Your task to perform on an android device: read, delete, or share a saved page in the chrome app Image 0: 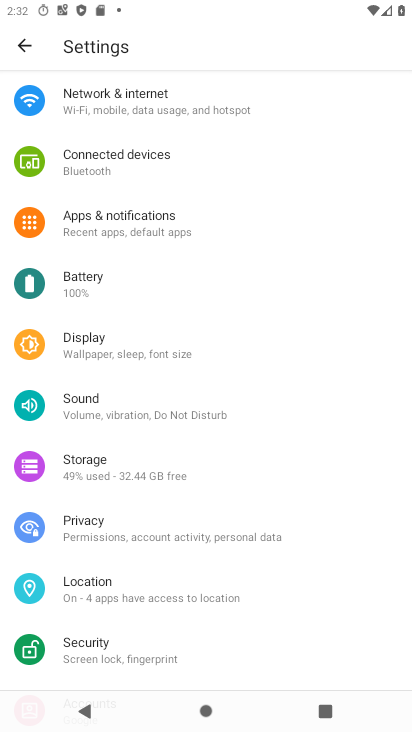
Step 0: press home button
Your task to perform on an android device: read, delete, or share a saved page in the chrome app Image 1: 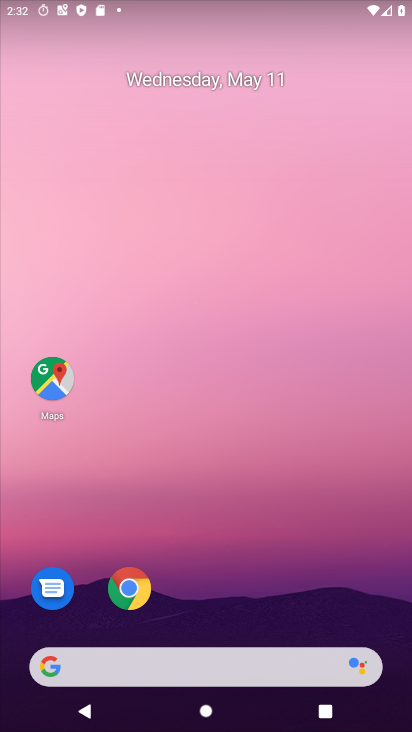
Step 1: drag from (202, 610) to (238, 34)
Your task to perform on an android device: read, delete, or share a saved page in the chrome app Image 2: 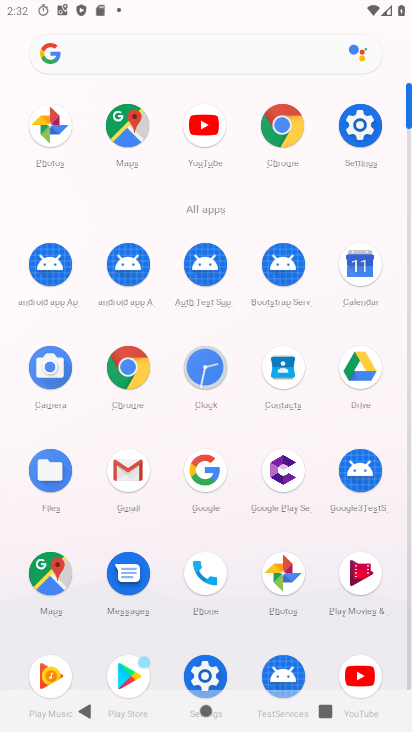
Step 2: click (281, 128)
Your task to perform on an android device: read, delete, or share a saved page in the chrome app Image 3: 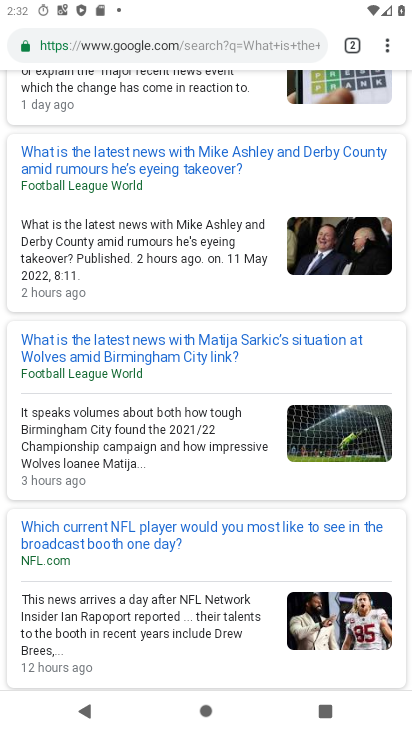
Step 3: drag from (385, 44) to (217, 141)
Your task to perform on an android device: read, delete, or share a saved page in the chrome app Image 4: 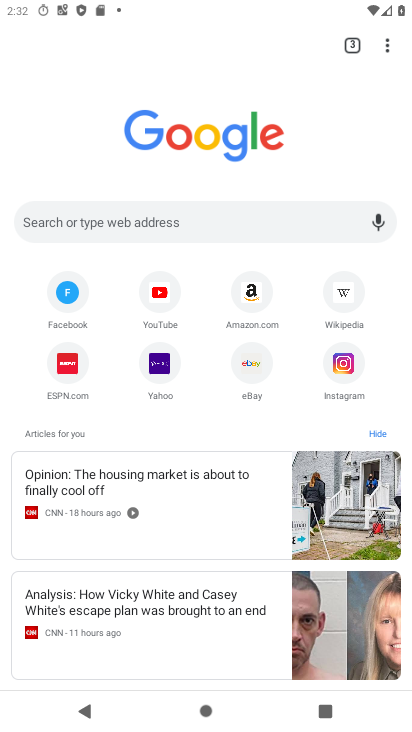
Step 4: click (353, 294)
Your task to perform on an android device: read, delete, or share a saved page in the chrome app Image 5: 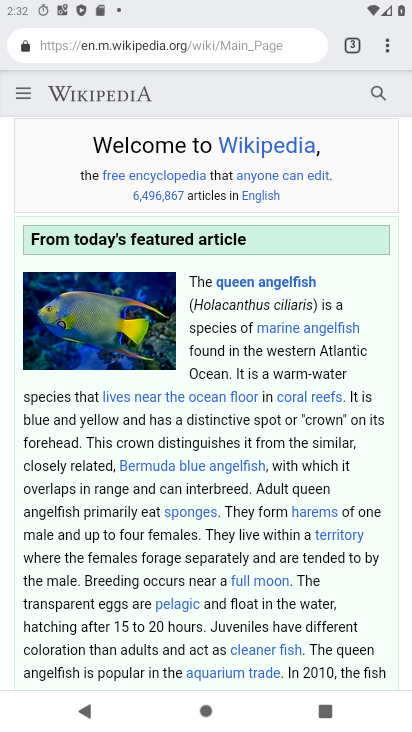
Step 5: drag from (251, 459) to (284, 150)
Your task to perform on an android device: read, delete, or share a saved page in the chrome app Image 6: 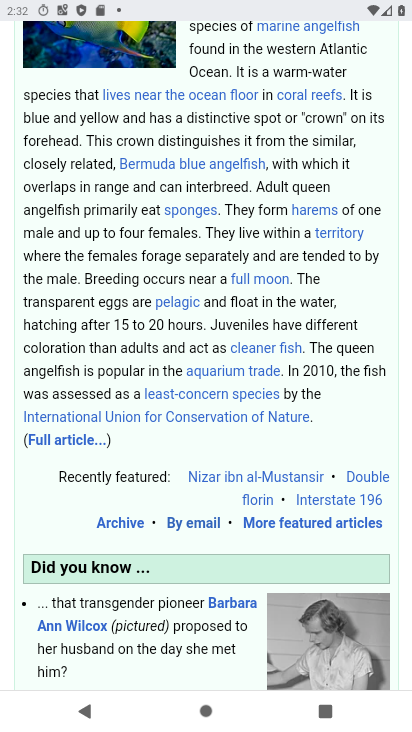
Step 6: drag from (200, 512) to (189, 639)
Your task to perform on an android device: read, delete, or share a saved page in the chrome app Image 7: 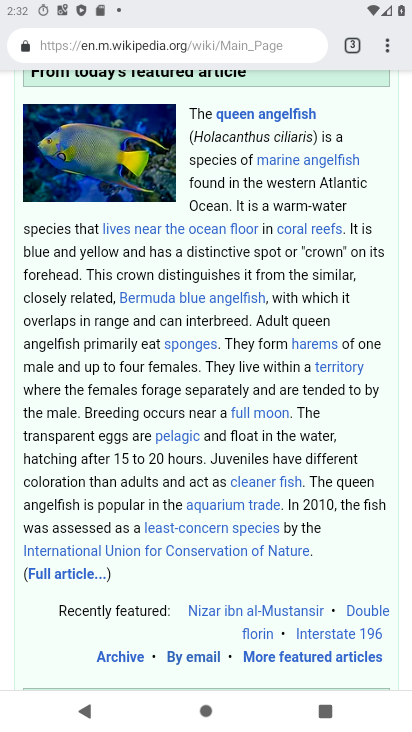
Step 7: drag from (381, 47) to (251, 48)
Your task to perform on an android device: read, delete, or share a saved page in the chrome app Image 8: 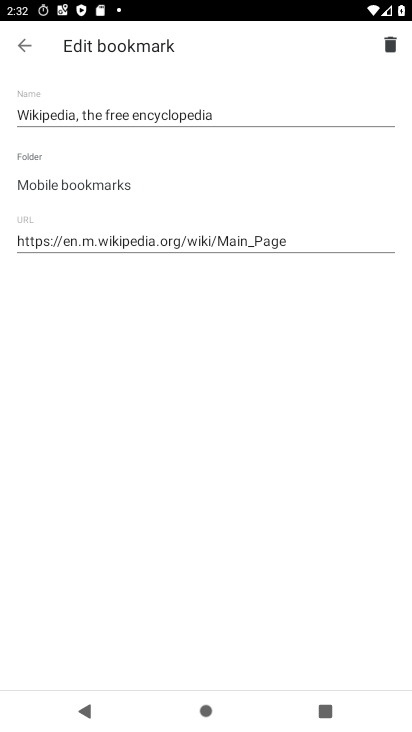
Step 8: click (387, 47)
Your task to perform on an android device: read, delete, or share a saved page in the chrome app Image 9: 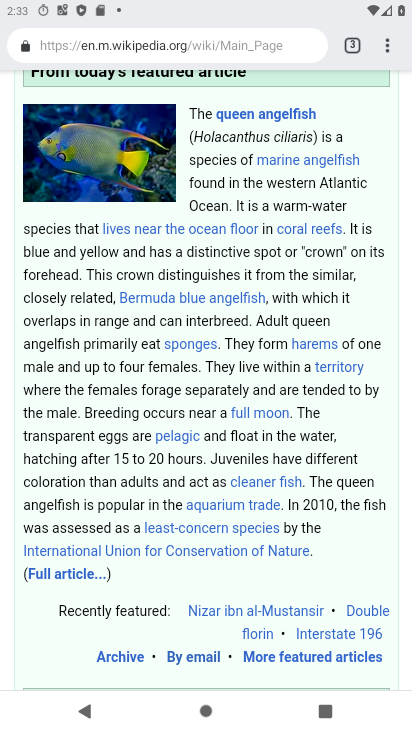
Step 9: task complete